Your task to perform on an android device: Show me recent news Image 0: 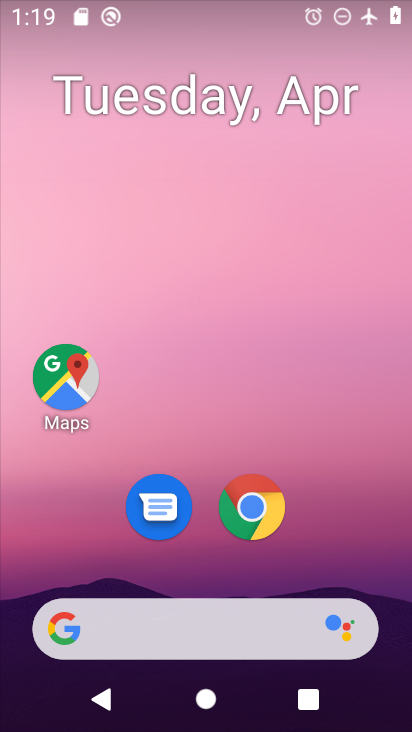
Step 0: click (313, 280)
Your task to perform on an android device: Show me recent news Image 1: 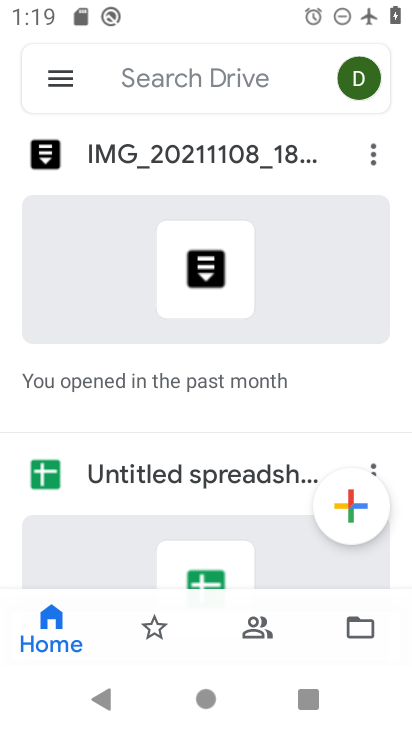
Step 1: press home button
Your task to perform on an android device: Show me recent news Image 2: 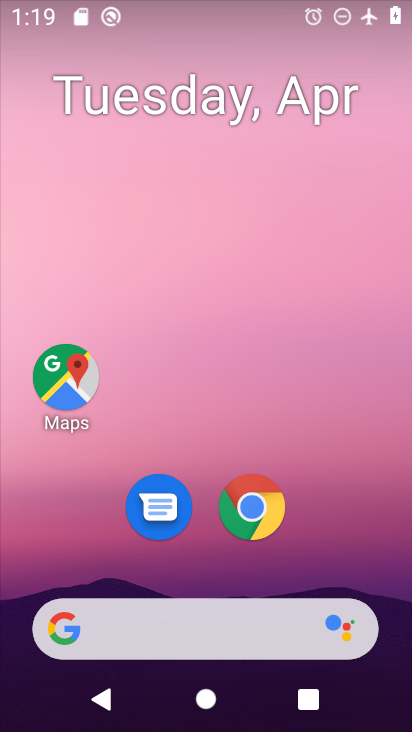
Step 2: click (250, 495)
Your task to perform on an android device: Show me recent news Image 3: 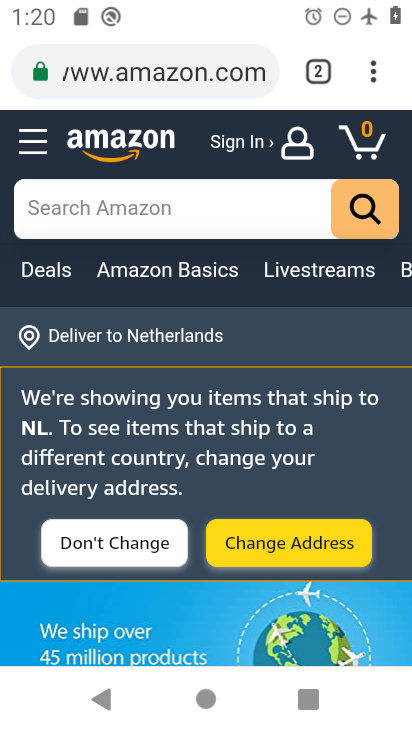
Step 3: click (310, 71)
Your task to perform on an android device: Show me recent news Image 4: 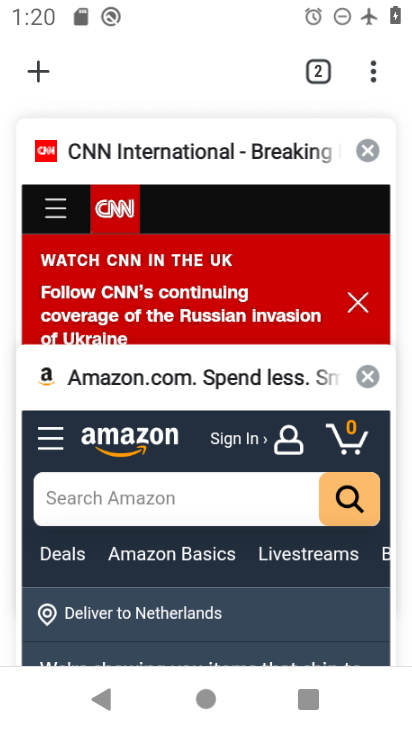
Step 4: click (34, 70)
Your task to perform on an android device: Show me recent news Image 5: 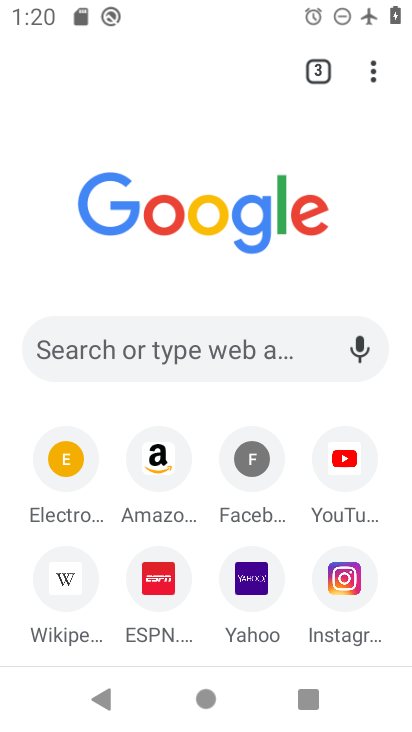
Step 5: task complete